Your task to perform on an android device: What's the weather going to be this weekend? Image 0: 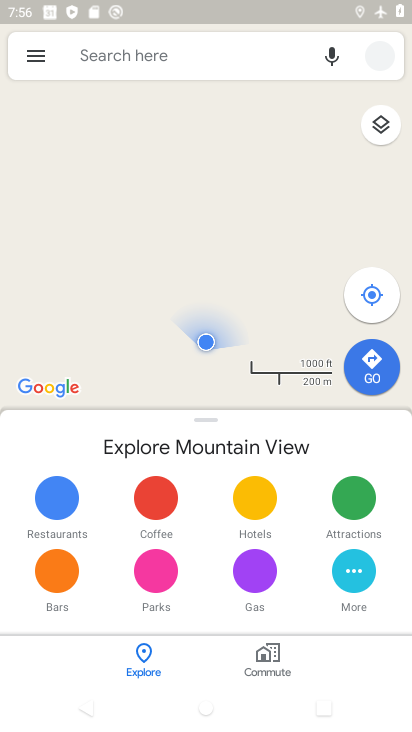
Step 0: press home button
Your task to perform on an android device: What's the weather going to be this weekend? Image 1: 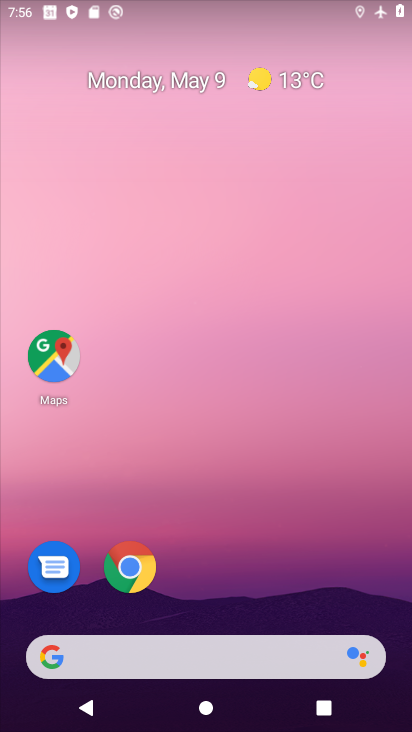
Step 1: click (277, 78)
Your task to perform on an android device: What's the weather going to be this weekend? Image 2: 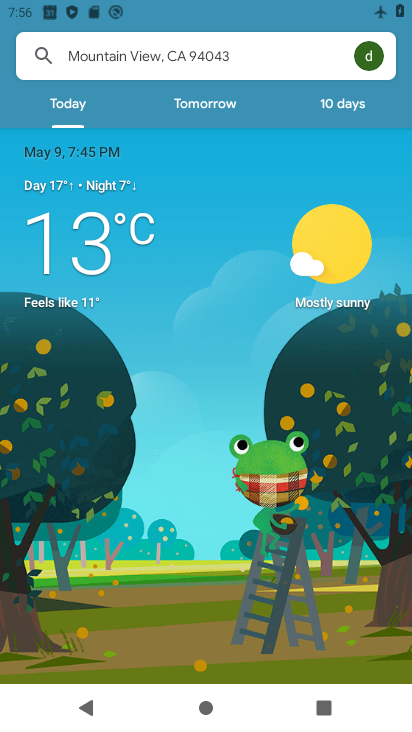
Step 2: click (354, 100)
Your task to perform on an android device: What's the weather going to be this weekend? Image 3: 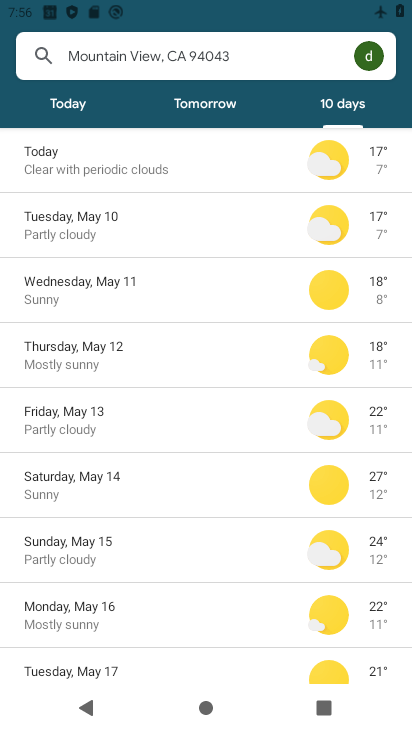
Step 3: click (83, 480)
Your task to perform on an android device: What's the weather going to be this weekend? Image 4: 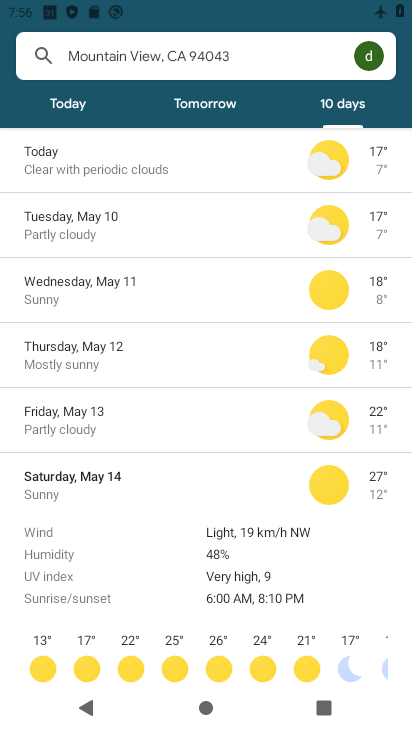
Step 4: task complete